Your task to perform on an android device: turn off location Image 0: 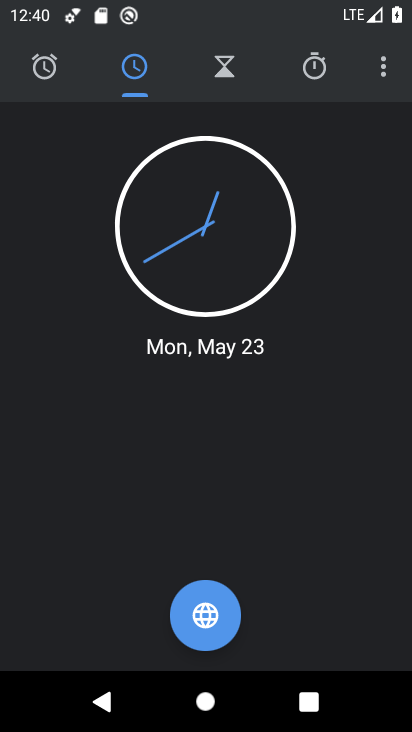
Step 0: press home button
Your task to perform on an android device: turn off location Image 1: 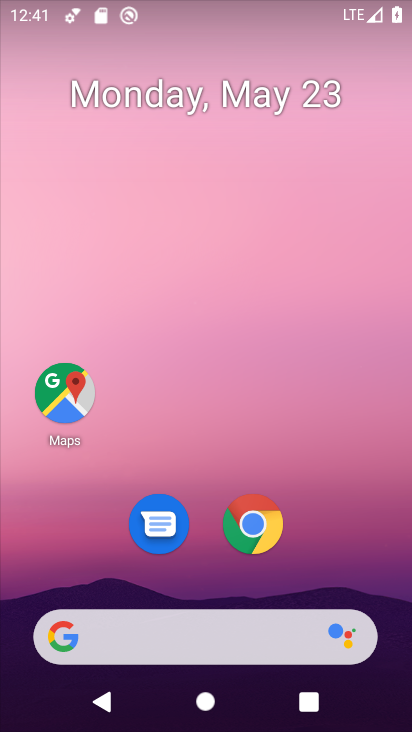
Step 1: drag from (220, 466) to (258, 1)
Your task to perform on an android device: turn off location Image 2: 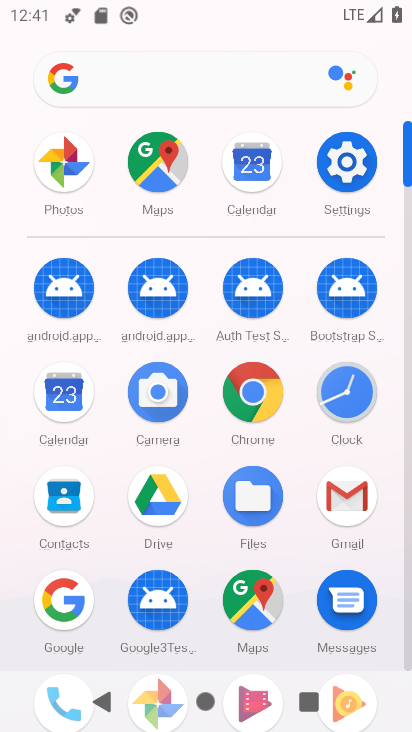
Step 2: click (343, 160)
Your task to perform on an android device: turn off location Image 3: 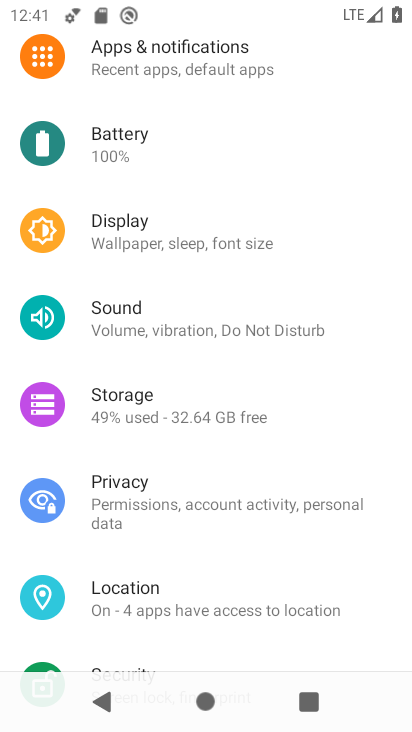
Step 3: click (164, 597)
Your task to perform on an android device: turn off location Image 4: 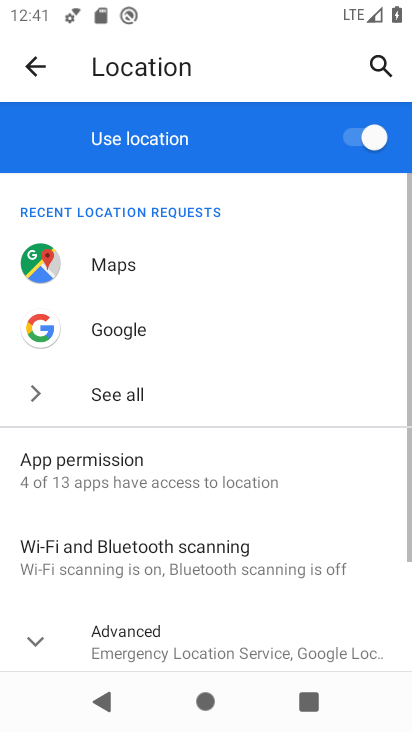
Step 4: click (361, 142)
Your task to perform on an android device: turn off location Image 5: 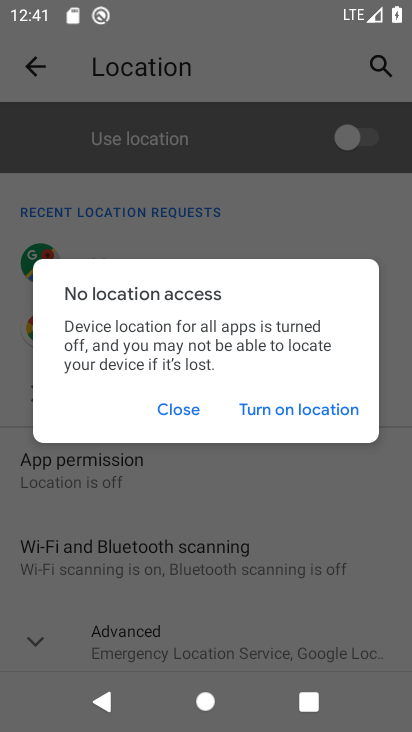
Step 5: click (187, 409)
Your task to perform on an android device: turn off location Image 6: 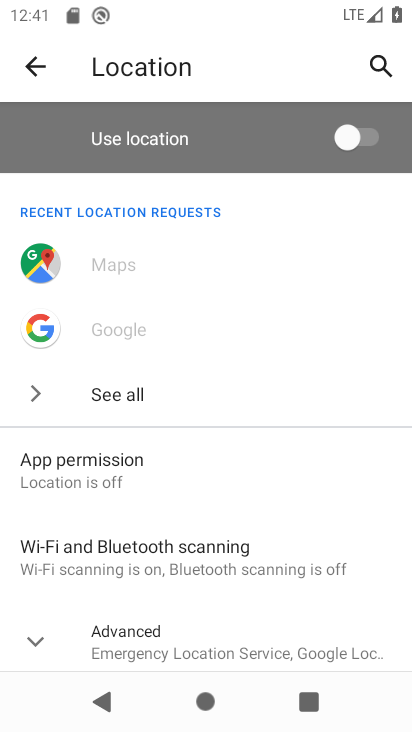
Step 6: task complete